Your task to perform on an android device: Go to Maps Image 0: 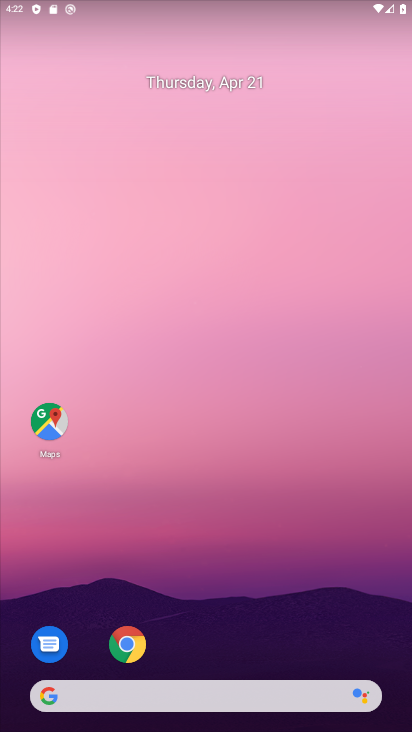
Step 0: drag from (224, 361) to (231, 163)
Your task to perform on an android device: Go to Maps Image 1: 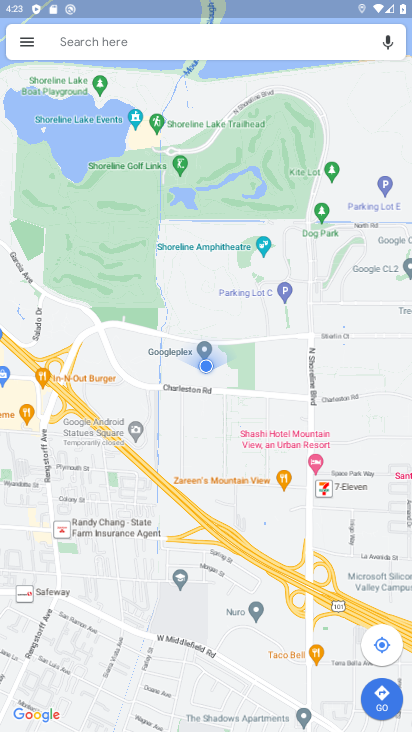
Step 1: task complete